Your task to perform on an android device: turn on the 12-hour format for clock Image 0: 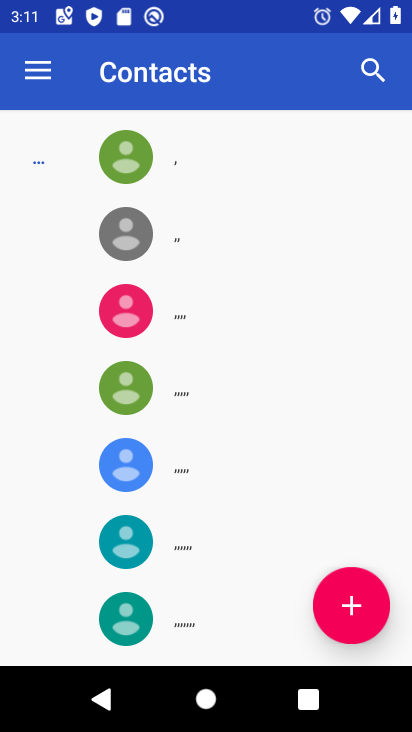
Step 0: press home button
Your task to perform on an android device: turn on the 12-hour format for clock Image 1: 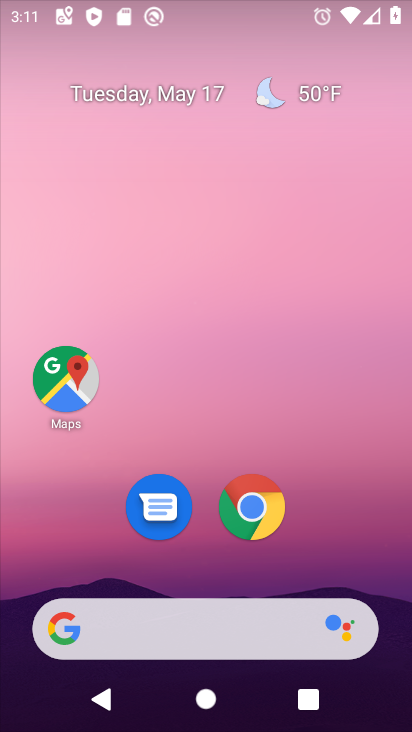
Step 1: drag from (334, 536) to (258, 46)
Your task to perform on an android device: turn on the 12-hour format for clock Image 2: 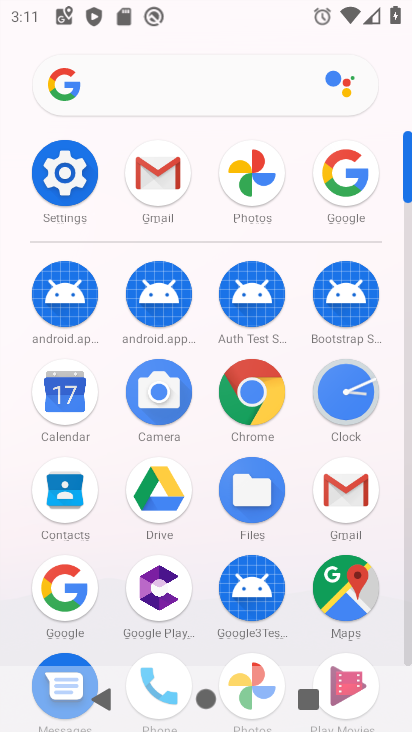
Step 2: click (348, 385)
Your task to perform on an android device: turn on the 12-hour format for clock Image 3: 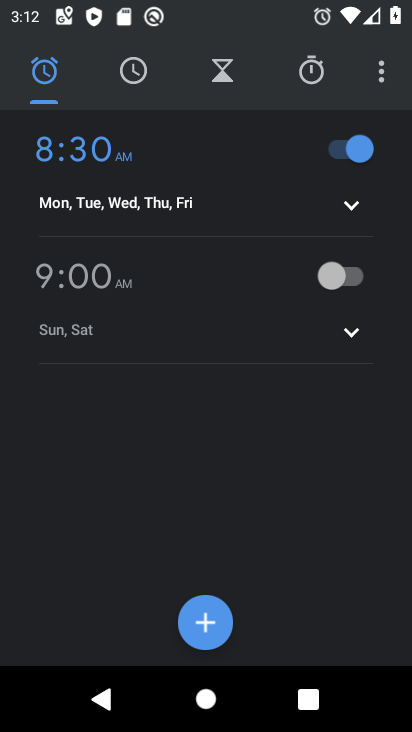
Step 3: click (383, 70)
Your task to perform on an android device: turn on the 12-hour format for clock Image 4: 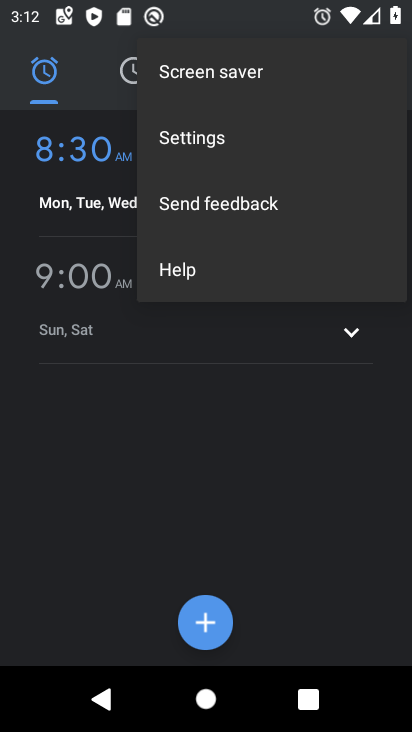
Step 4: click (179, 143)
Your task to perform on an android device: turn on the 12-hour format for clock Image 5: 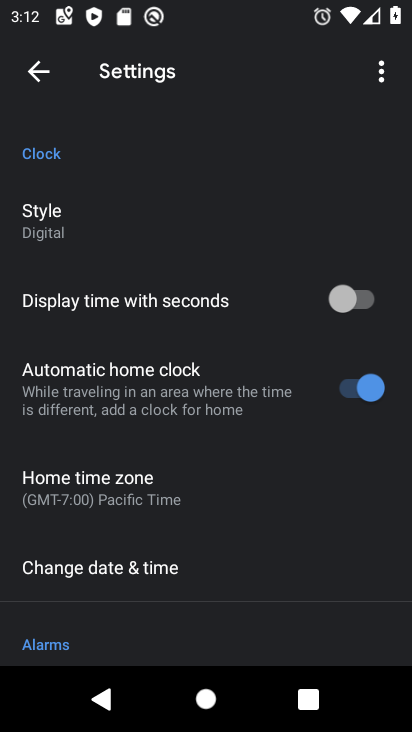
Step 5: drag from (236, 522) to (211, 242)
Your task to perform on an android device: turn on the 12-hour format for clock Image 6: 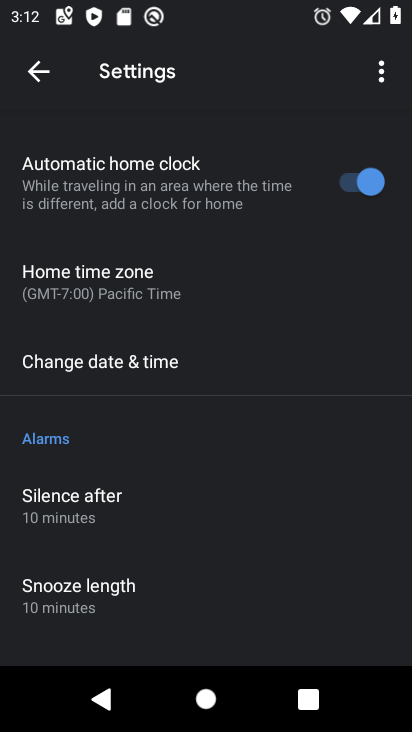
Step 6: click (187, 350)
Your task to perform on an android device: turn on the 12-hour format for clock Image 7: 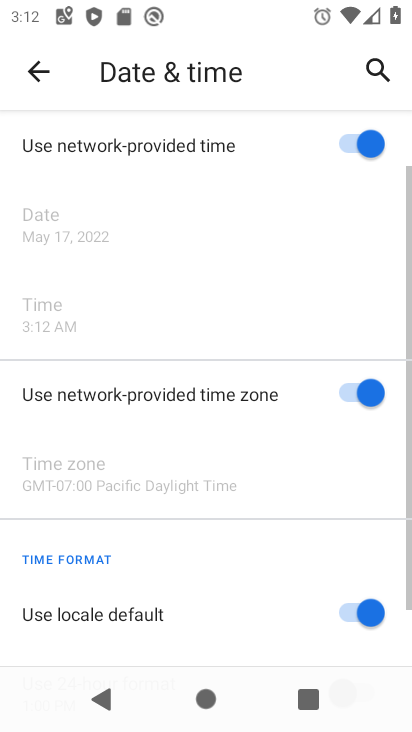
Step 7: task complete